Your task to perform on an android device: turn on improve location accuracy Image 0: 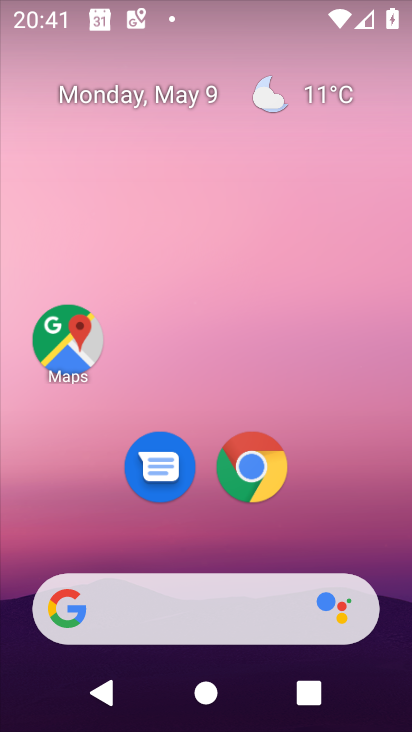
Step 0: drag from (243, 618) to (261, 258)
Your task to perform on an android device: turn on improve location accuracy Image 1: 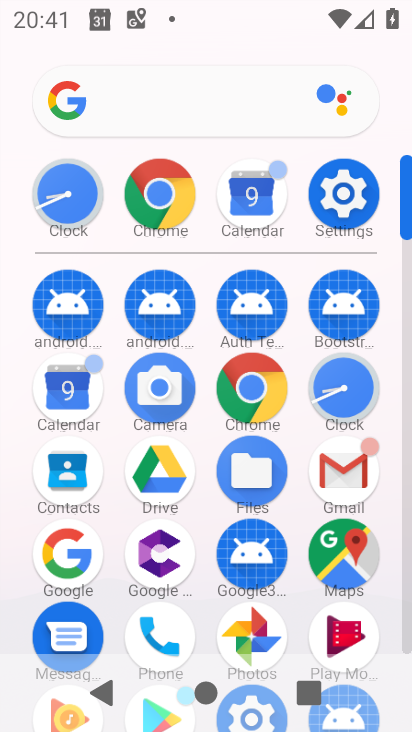
Step 1: click (354, 182)
Your task to perform on an android device: turn on improve location accuracy Image 2: 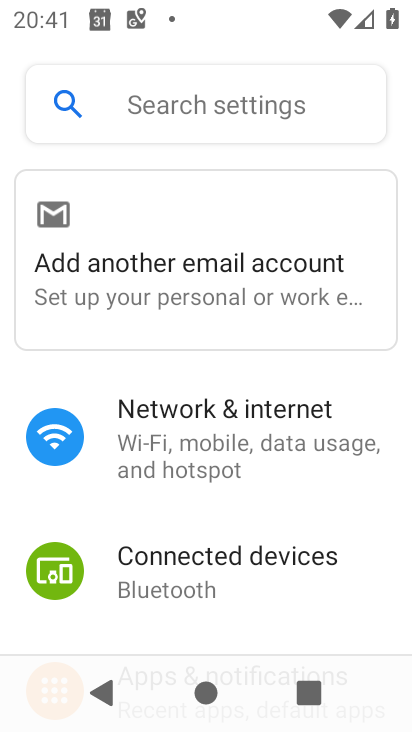
Step 2: drag from (215, 613) to (302, 127)
Your task to perform on an android device: turn on improve location accuracy Image 3: 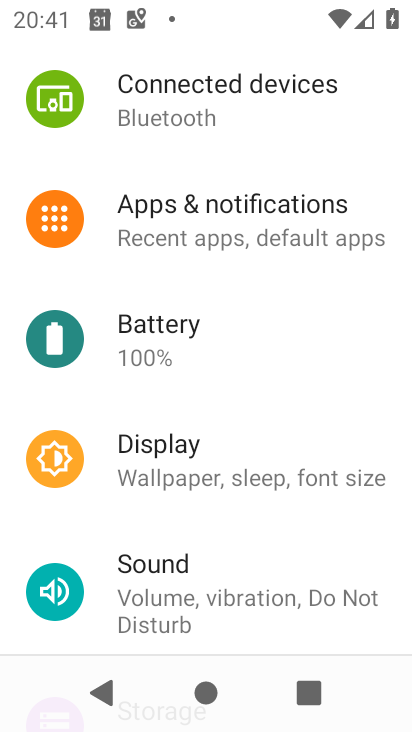
Step 3: drag from (180, 576) to (314, 177)
Your task to perform on an android device: turn on improve location accuracy Image 4: 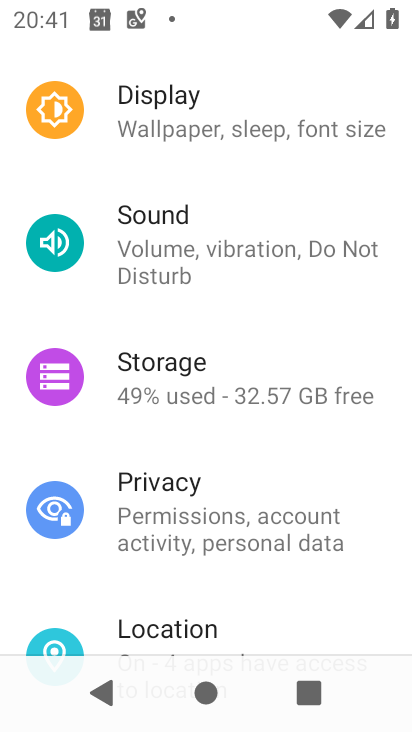
Step 4: drag from (176, 595) to (276, 295)
Your task to perform on an android device: turn on improve location accuracy Image 5: 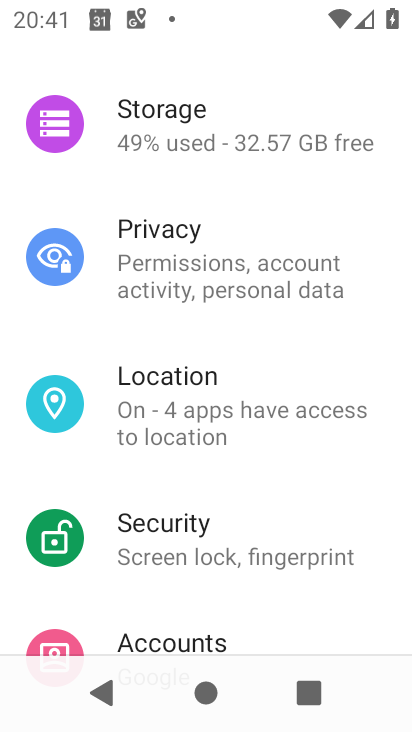
Step 5: click (183, 406)
Your task to perform on an android device: turn on improve location accuracy Image 6: 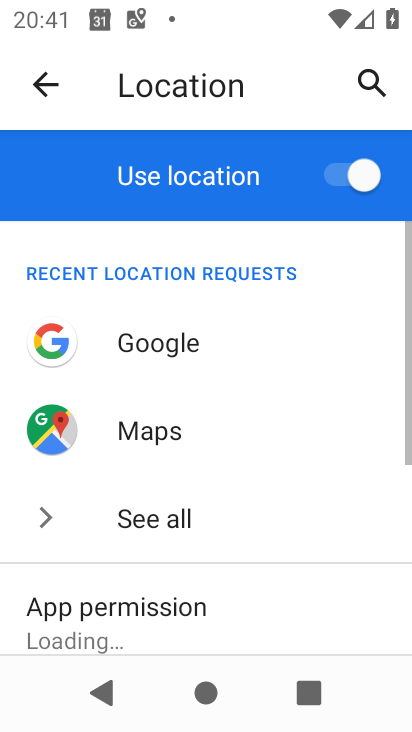
Step 6: drag from (190, 595) to (282, 219)
Your task to perform on an android device: turn on improve location accuracy Image 7: 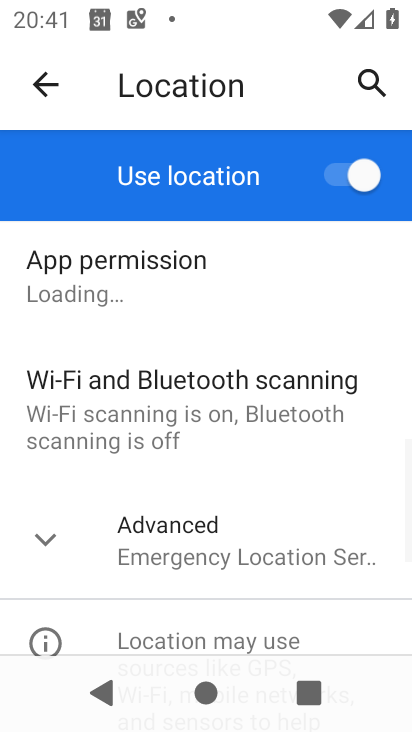
Step 7: drag from (171, 587) to (257, 274)
Your task to perform on an android device: turn on improve location accuracy Image 8: 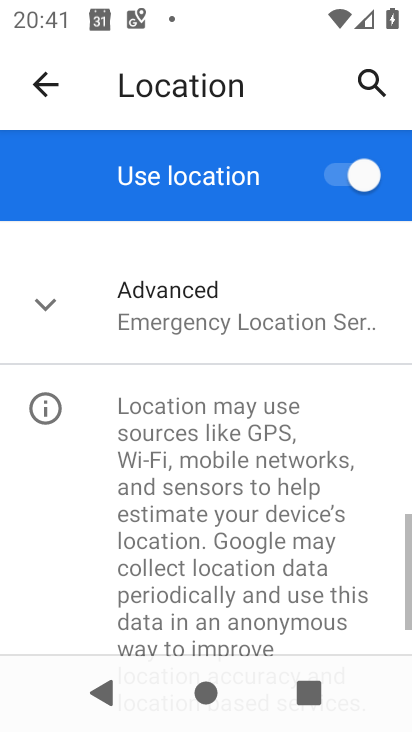
Step 8: click (202, 313)
Your task to perform on an android device: turn on improve location accuracy Image 9: 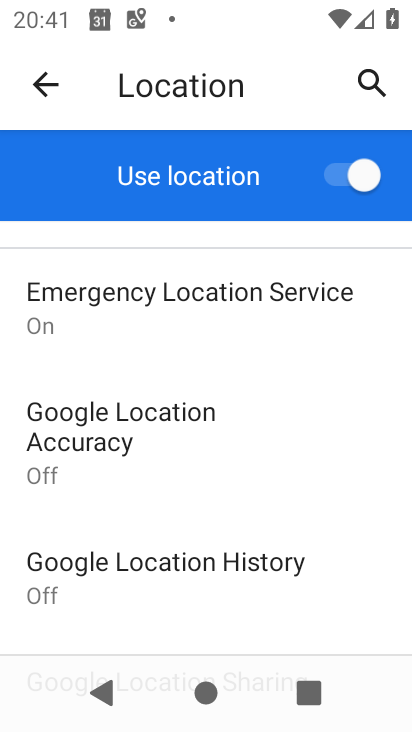
Step 9: drag from (119, 583) to (205, 400)
Your task to perform on an android device: turn on improve location accuracy Image 10: 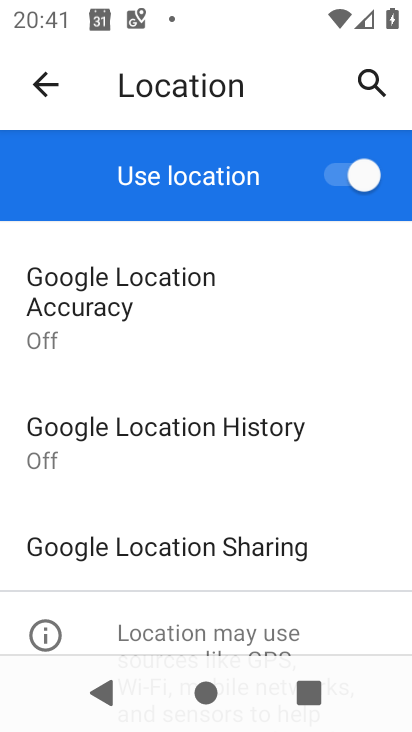
Step 10: click (166, 321)
Your task to perform on an android device: turn on improve location accuracy Image 11: 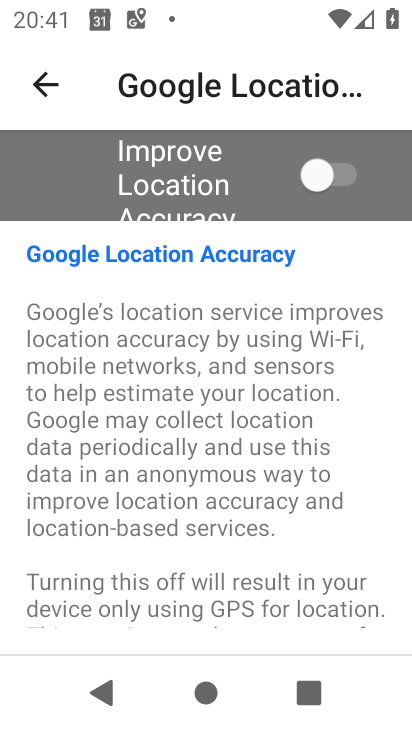
Step 11: click (330, 177)
Your task to perform on an android device: turn on improve location accuracy Image 12: 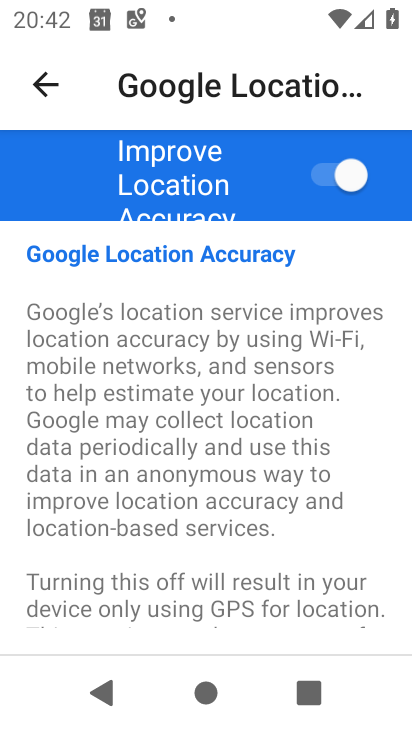
Step 12: task complete